Your task to perform on an android device: Open calendar and show me the third week of next month Image 0: 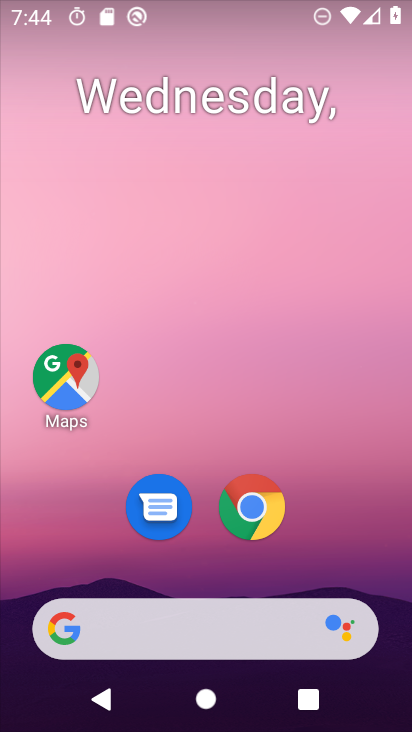
Step 0: drag from (210, 636) to (282, 76)
Your task to perform on an android device: Open calendar and show me the third week of next month Image 1: 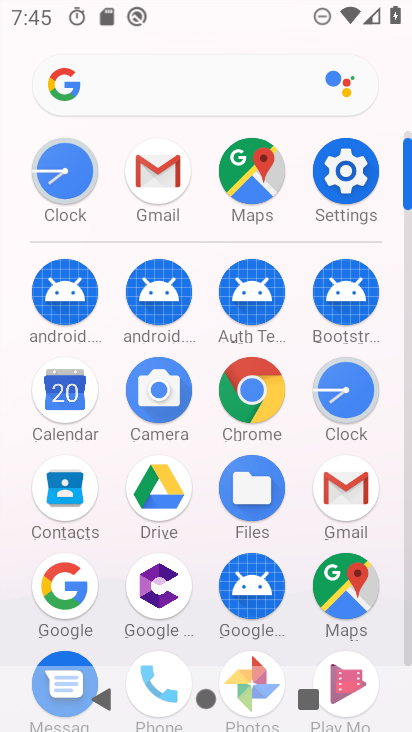
Step 1: click (47, 402)
Your task to perform on an android device: Open calendar and show me the third week of next month Image 2: 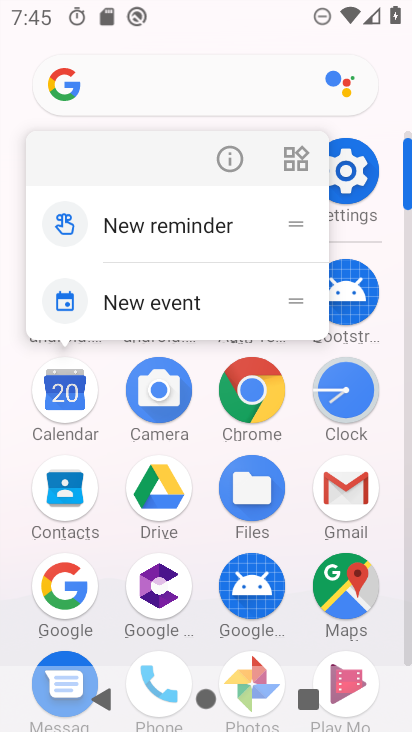
Step 2: click (59, 390)
Your task to perform on an android device: Open calendar and show me the third week of next month Image 3: 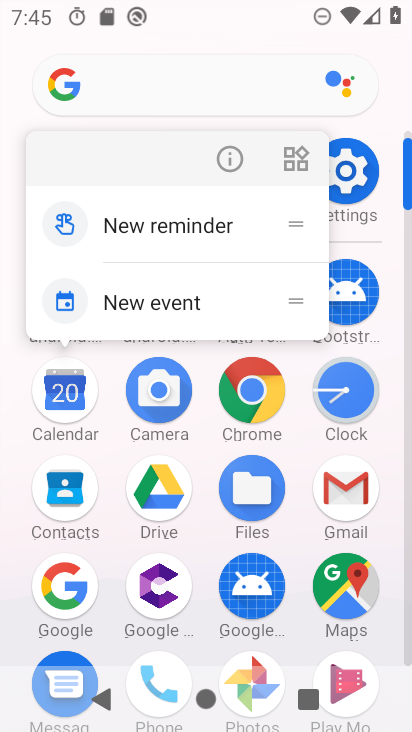
Step 3: click (64, 404)
Your task to perform on an android device: Open calendar and show me the third week of next month Image 4: 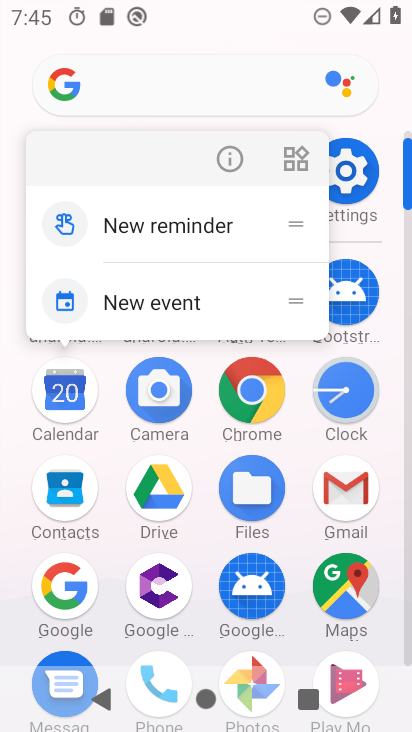
Step 4: click (71, 399)
Your task to perform on an android device: Open calendar and show me the third week of next month Image 5: 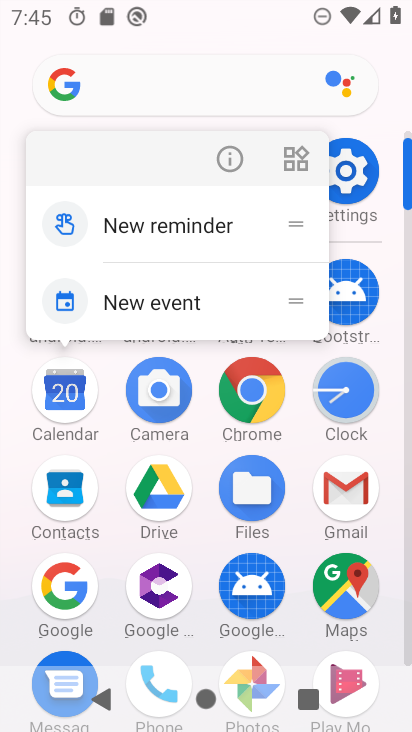
Step 5: click (71, 399)
Your task to perform on an android device: Open calendar and show me the third week of next month Image 6: 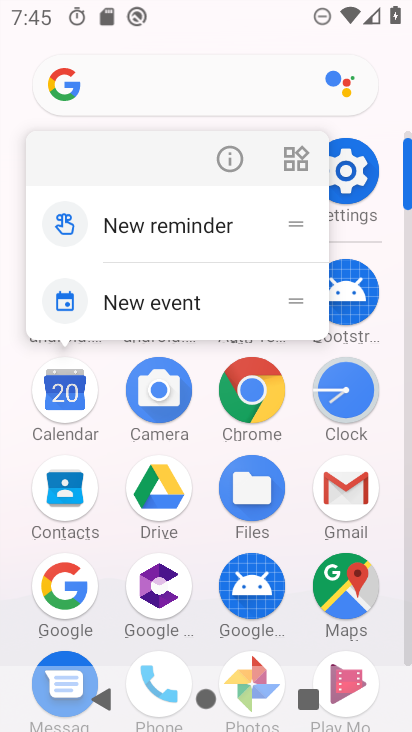
Step 6: click (71, 399)
Your task to perform on an android device: Open calendar and show me the third week of next month Image 7: 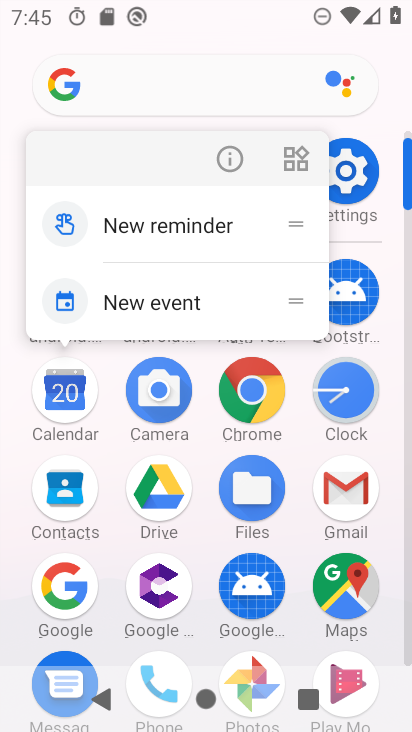
Step 7: click (71, 399)
Your task to perform on an android device: Open calendar and show me the third week of next month Image 8: 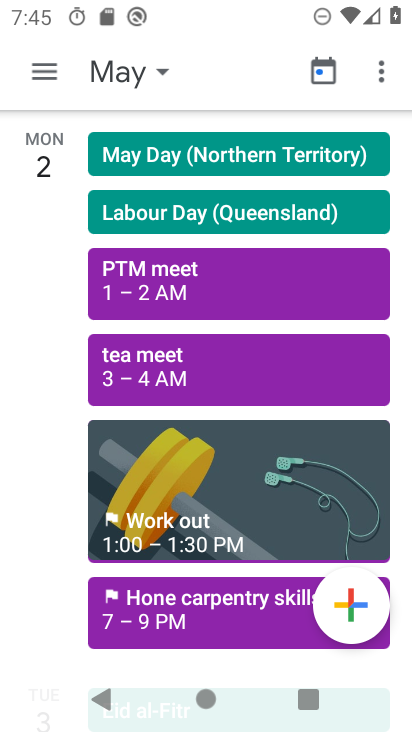
Step 8: click (46, 91)
Your task to perform on an android device: Open calendar and show me the third week of next month Image 9: 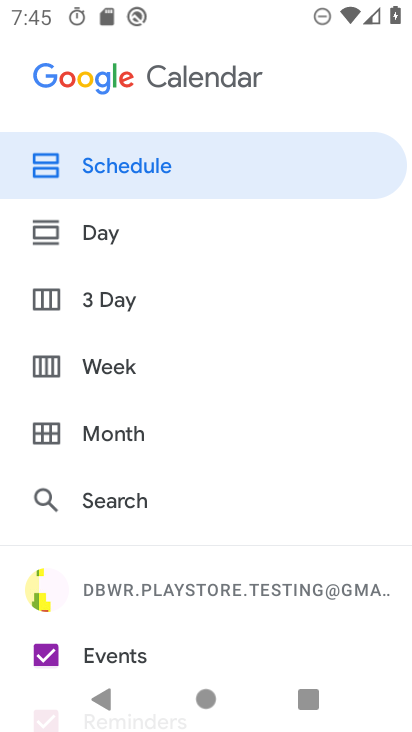
Step 9: click (125, 429)
Your task to perform on an android device: Open calendar and show me the third week of next month Image 10: 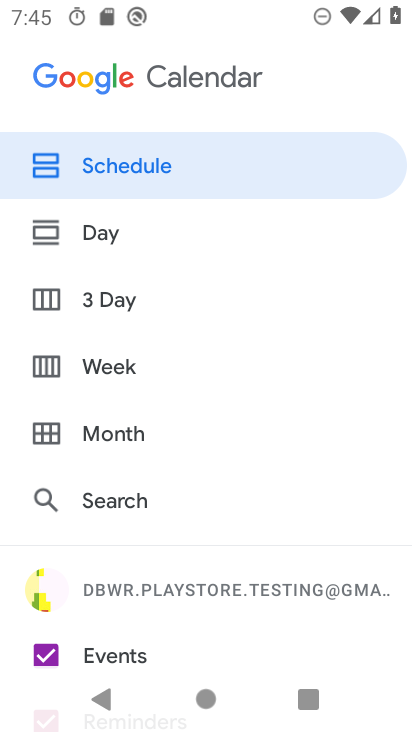
Step 10: click (104, 434)
Your task to perform on an android device: Open calendar and show me the third week of next month Image 11: 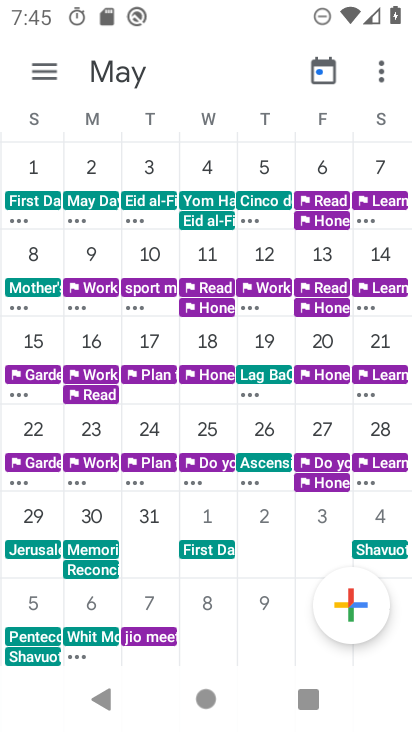
Step 11: click (96, 422)
Your task to perform on an android device: Open calendar and show me the third week of next month Image 12: 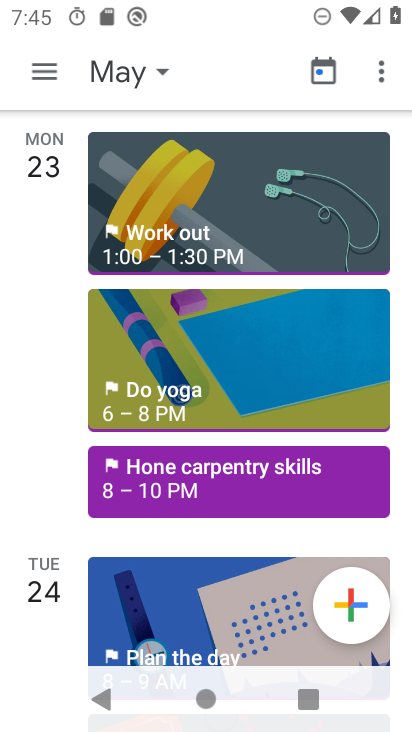
Step 12: task complete